Your task to perform on an android device: check data usage Image 0: 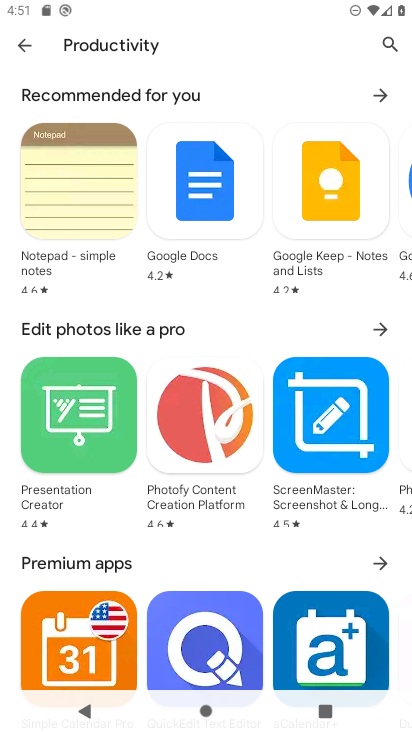
Step 0: press home button
Your task to perform on an android device: check data usage Image 1: 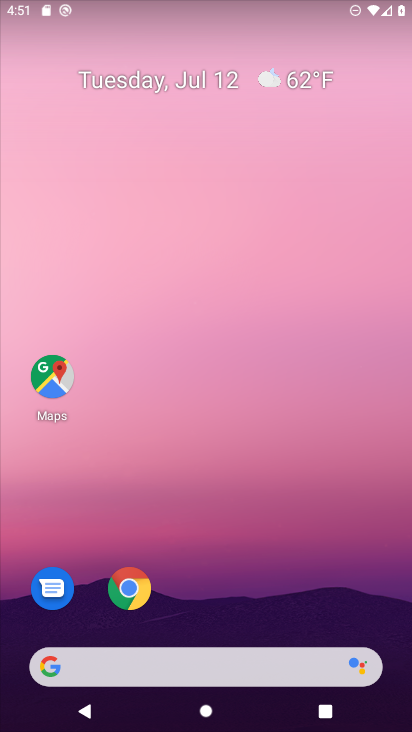
Step 1: drag from (205, 624) to (178, 144)
Your task to perform on an android device: check data usage Image 2: 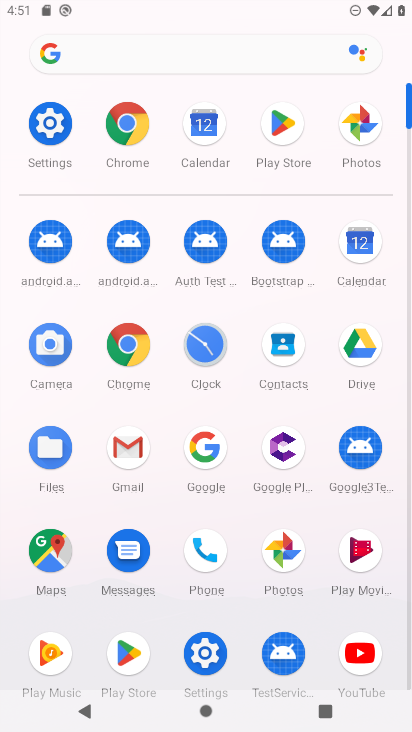
Step 2: click (205, 661)
Your task to perform on an android device: check data usage Image 3: 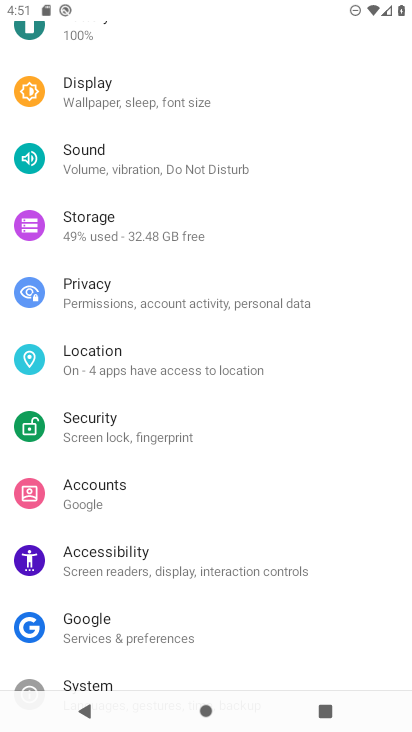
Step 3: drag from (231, 197) to (215, 723)
Your task to perform on an android device: check data usage Image 4: 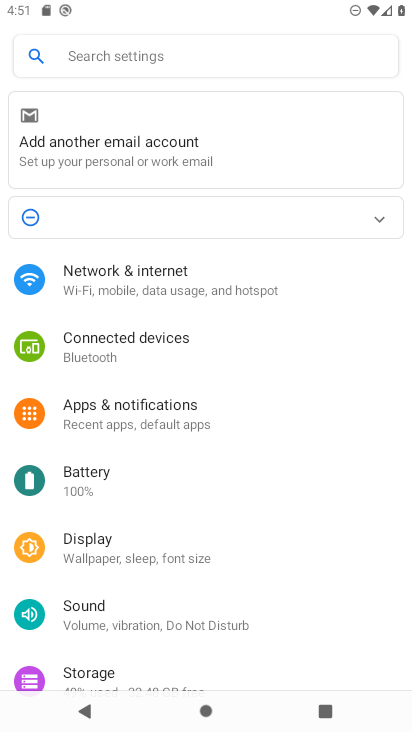
Step 4: click (150, 268)
Your task to perform on an android device: check data usage Image 5: 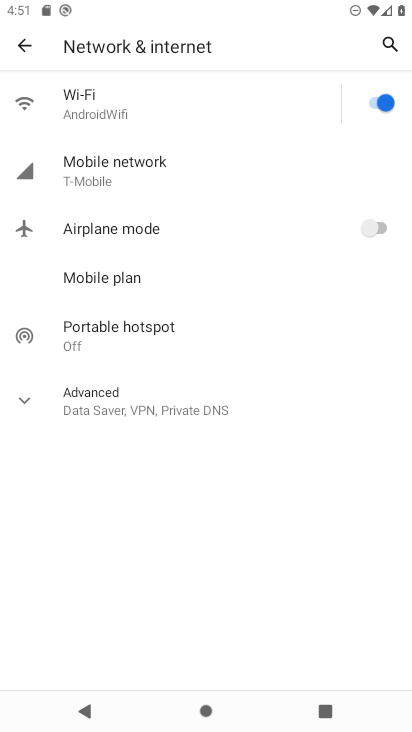
Step 5: click (130, 160)
Your task to perform on an android device: check data usage Image 6: 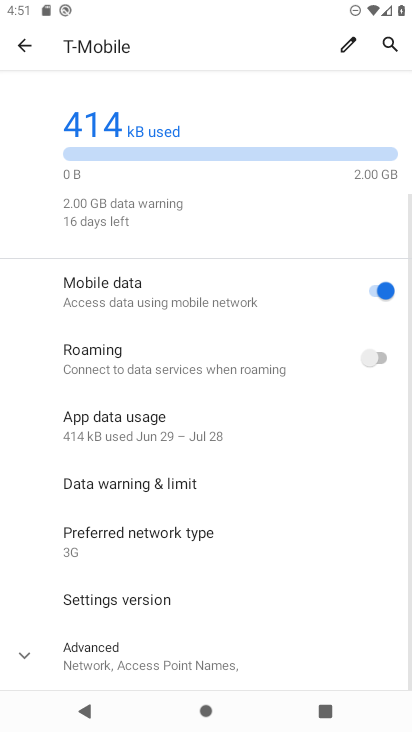
Step 6: click (184, 430)
Your task to perform on an android device: check data usage Image 7: 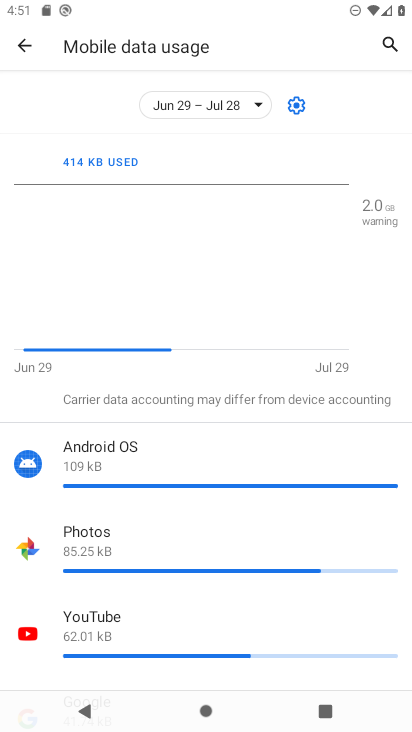
Step 7: task complete